Your task to perform on an android device: Open the stopwatch Image 0: 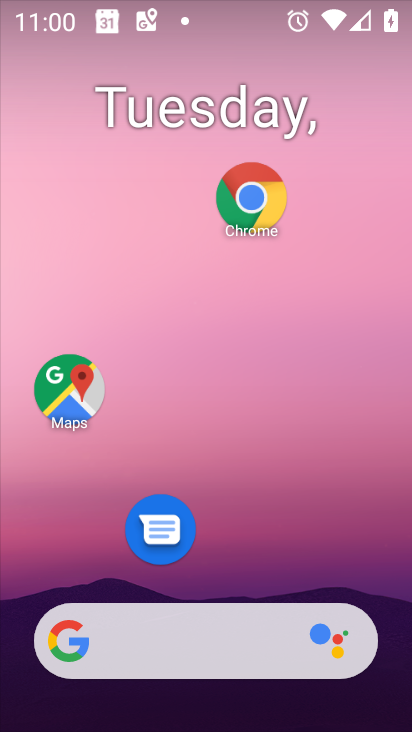
Step 0: drag from (371, 546) to (370, 174)
Your task to perform on an android device: Open the stopwatch Image 1: 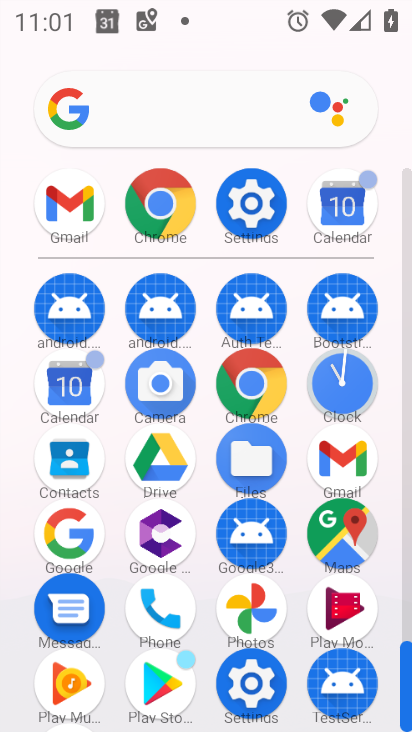
Step 1: click (348, 374)
Your task to perform on an android device: Open the stopwatch Image 2: 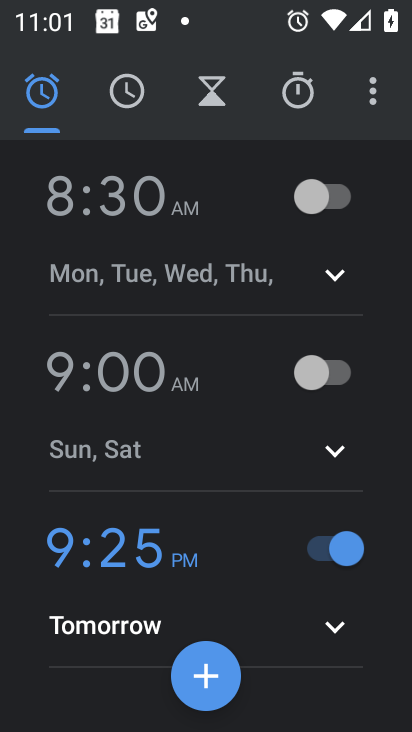
Step 2: click (306, 105)
Your task to perform on an android device: Open the stopwatch Image 3: 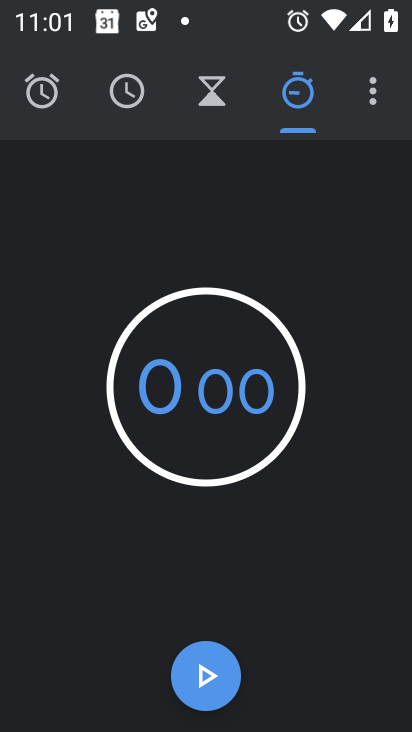
Step 3: task complete